Your task to perform on an android device: See recent photos Image 0: 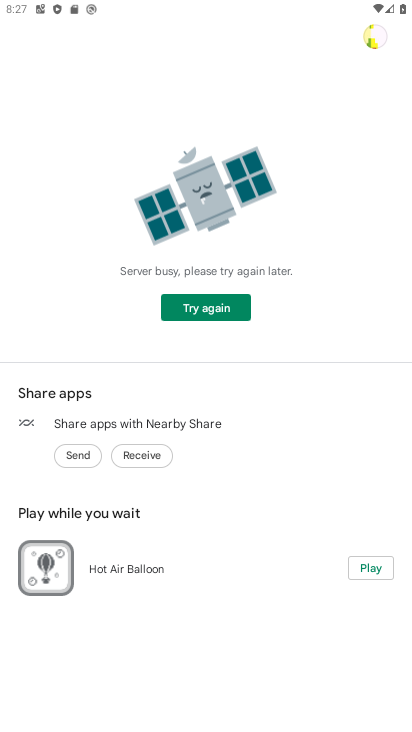
Step 0: press home button
Your task to perform on an android device: See recent photos Image 1: 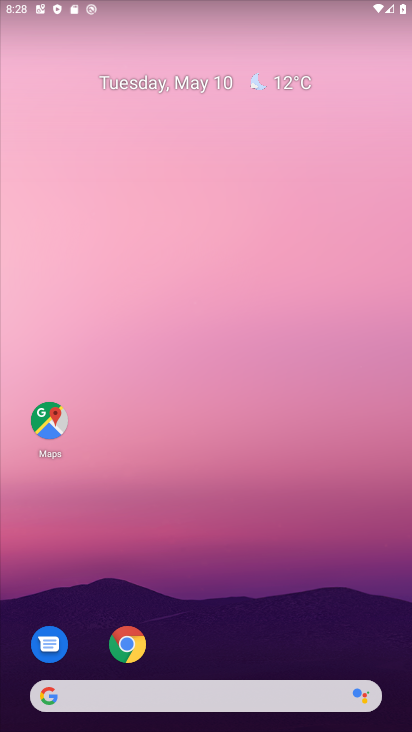
Step 1: drag from (364, 642) to (314, 107)
Your task to perform on an android device: See recent photos Image 2: 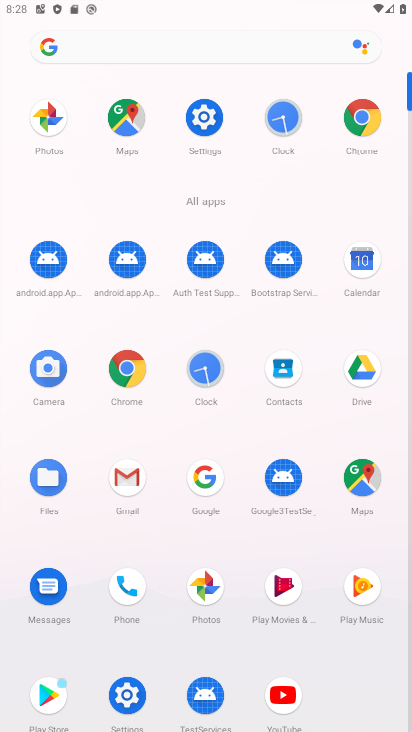
Step 2: click (205, 585)
Your task to perform on an android device: See recent photos Image 3: 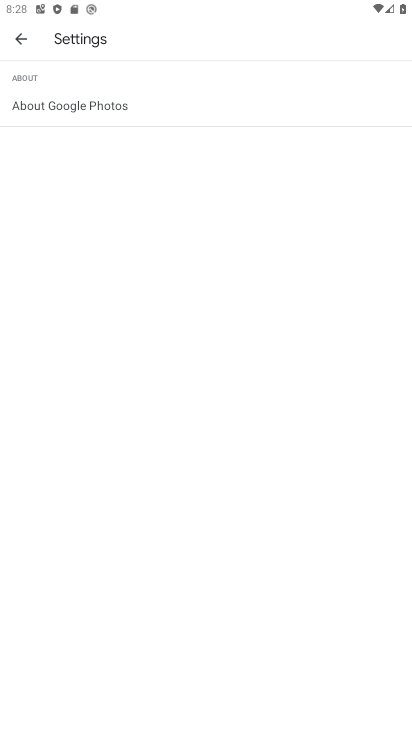
Step 3: press back button
Your task to perform on an android device: See recent photos Image 4: 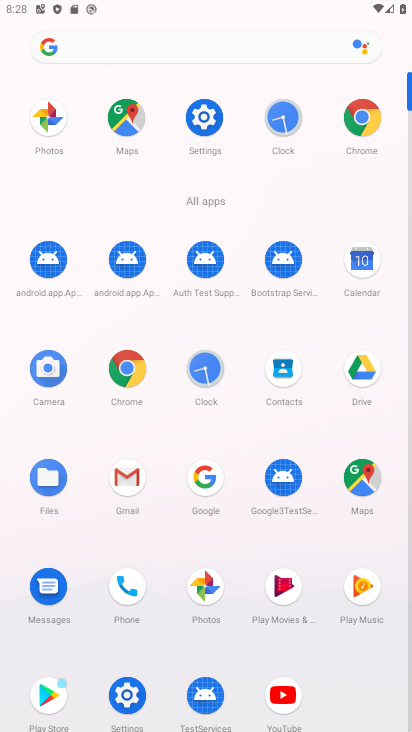
Step 4: click (206, 582)
Your task to perform on an android device: See recent photos Image 5: 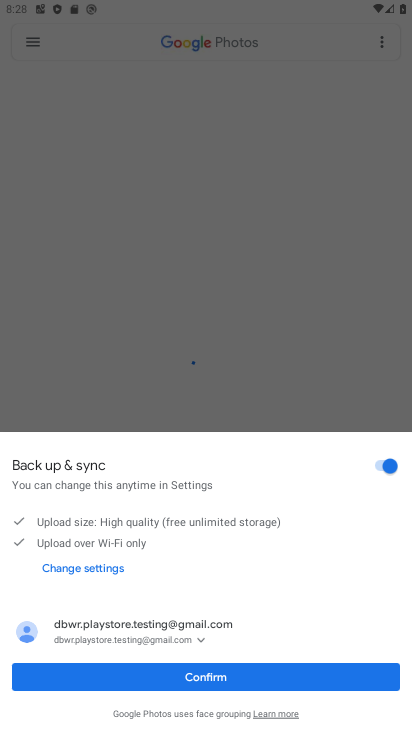
Step 5: click (203, 669)
Your task to perform on an android device: See recent photos Image 6: 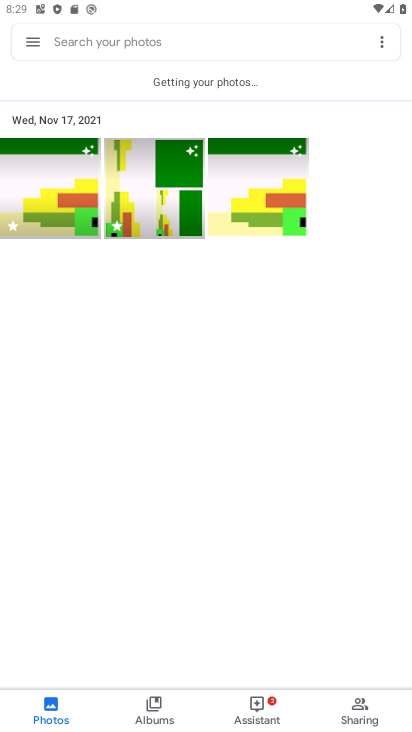
Step 6: task complete